Your task to perform on an android device: Open notification settings Image 0: 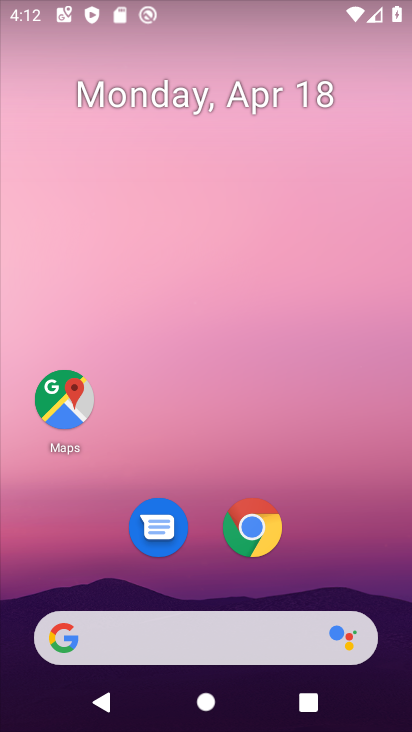
Step 0: drag from (196, 590) to (237, 182)
Your task to perform on an android device: Open notification settings Image 1: 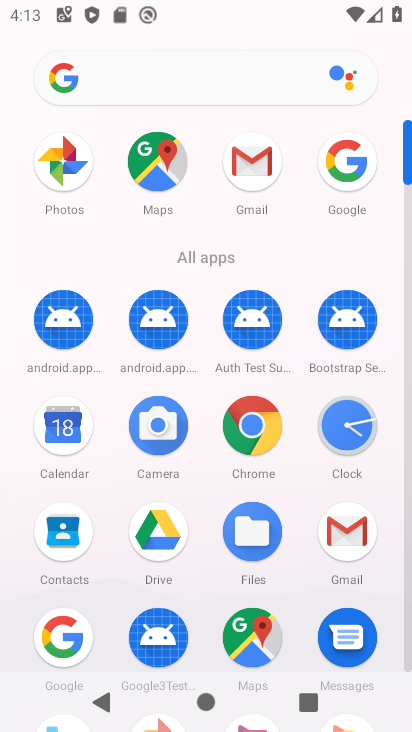
Step 1: drag from (203, 592) to (207, 168)
Your task to perform on an android device: Open notification settings Image 2: 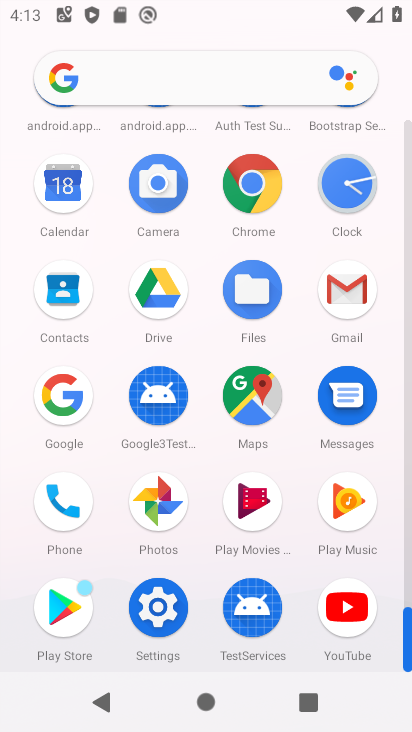
Step 2: click (158, 601)
Your task to perform on an android device: Open notification settings Image 3: 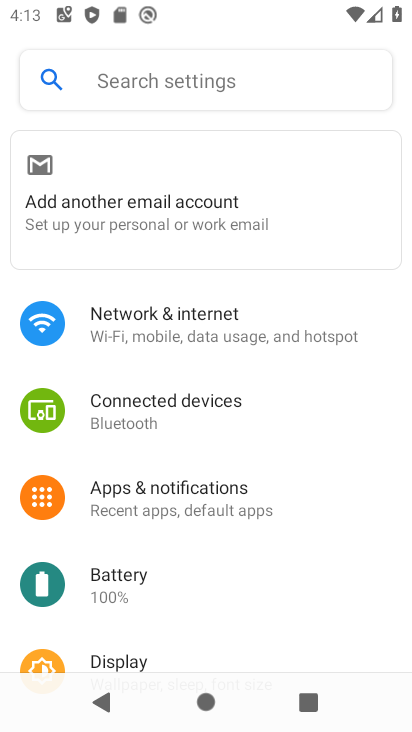
Step 3: click (225, 498)
Your task to perform on an android device: Open notification settings Image 4: 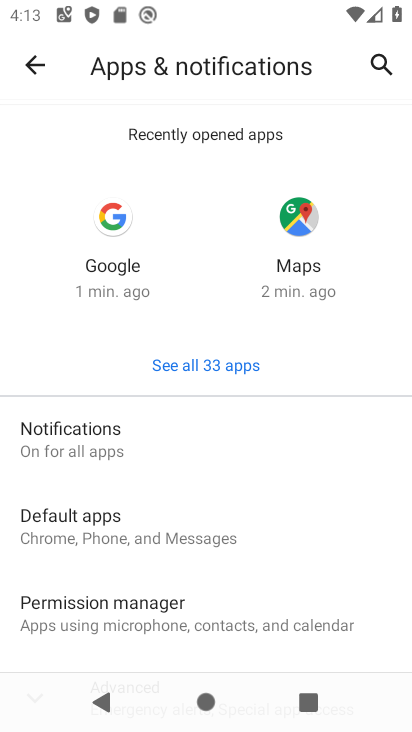
Step 4: click (143, 429)
Your task to perform on an android device: Open notification settings Image 5: 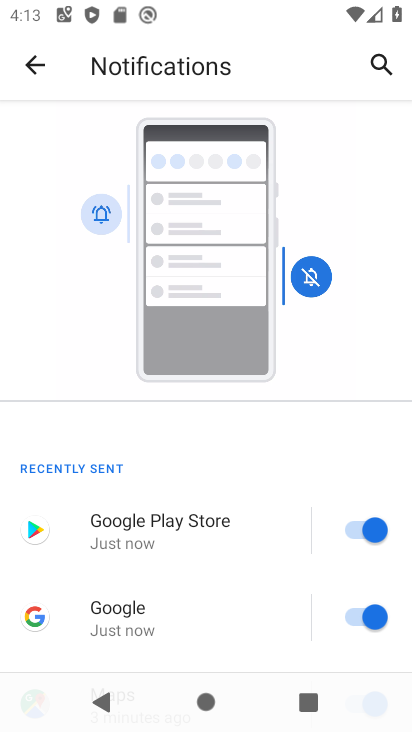
Step 5: drag from (215, 595) to (214, 131)
Your task to perform on an android device: Open notification settings Image 6: 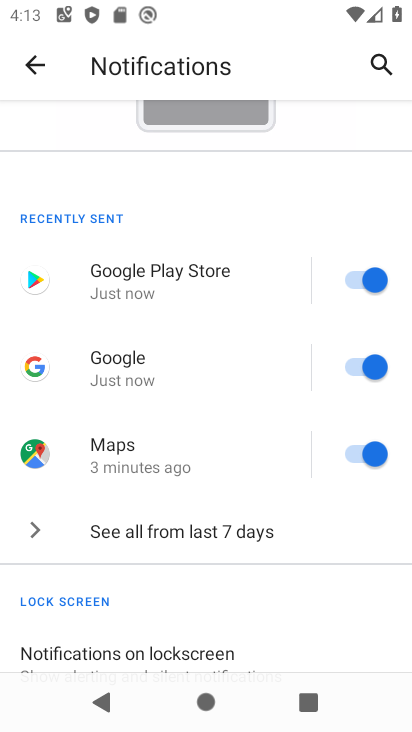
Step 6: drag from (197, 616) to (190, 254)
Your task to perform on an android device: Open notification settings Image 7: 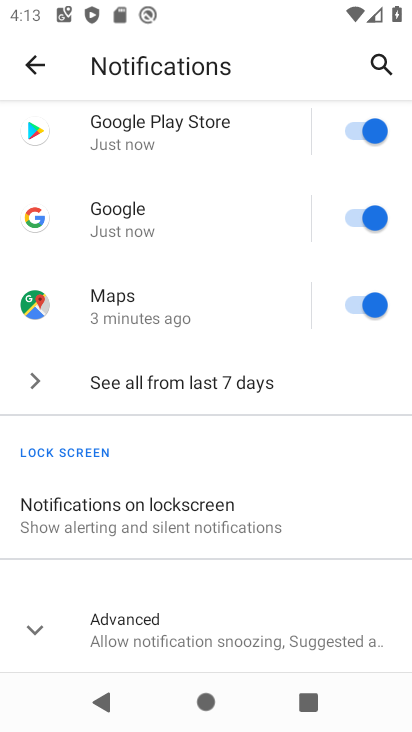
Step 7: drag from (216, 604) to (237, 323)
Your task to perform on an android device: Open notification settings Image 8: 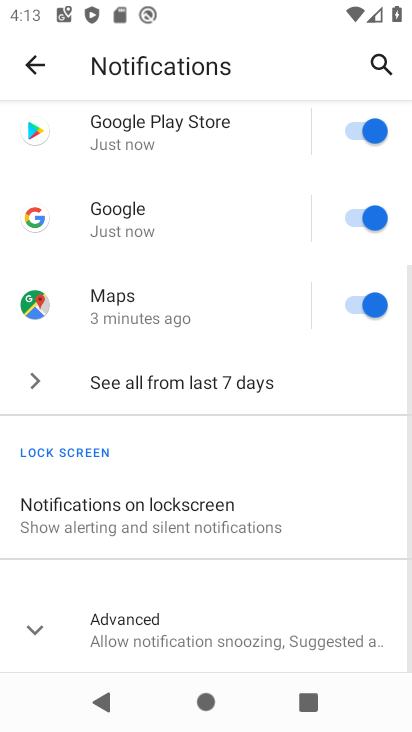
Step 8: click (36, 626)
Your task to perform on an android device: Open notification settings Image 9: 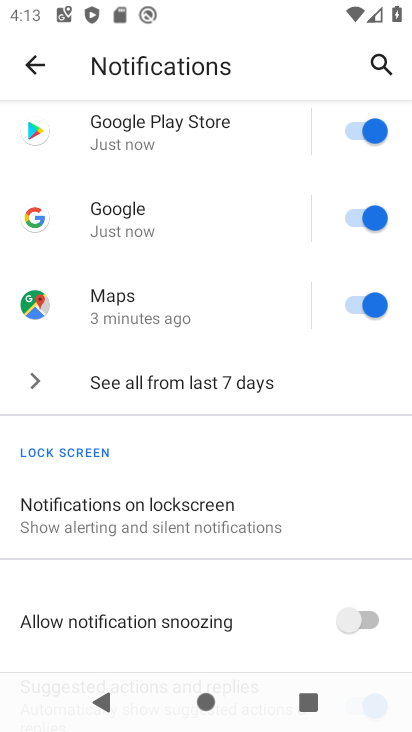
Step 9: task complete